Your task to perform on an android device: open the mobile data screen to see how much data has been used Image 0: 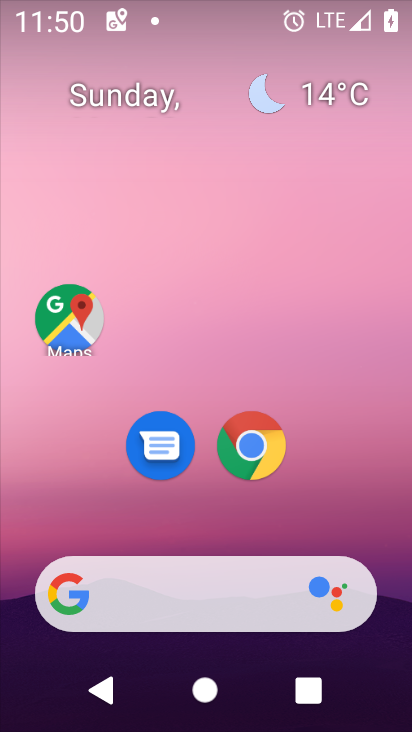
Step 0: click (375, 32)
Your task to perform on an android device: open the mobile data screen to see how much data has been used Image 1: 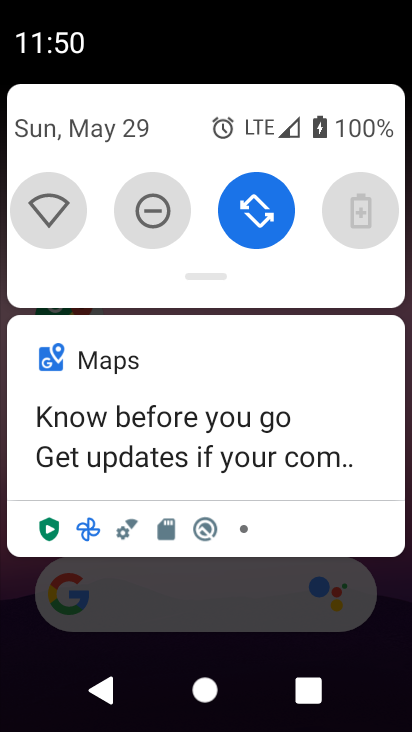
Step 1: drag from (243, 328) to (288, 128)
Your task to perform on an android device: open the mobile data screen to see how much data has been used Image 2: 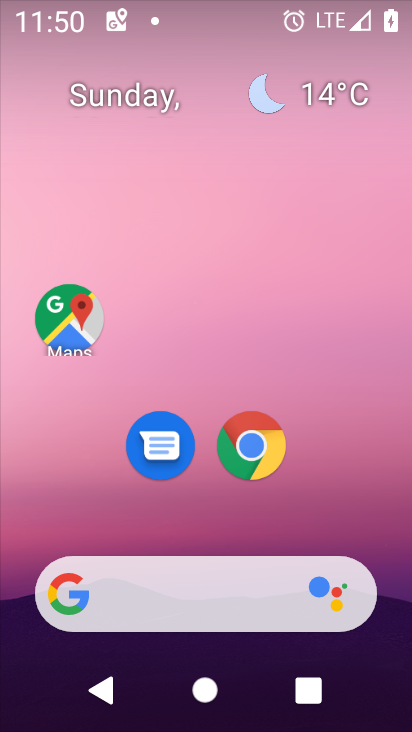
Step 2: drag from (213, 530) to (286, 115)
Your task to perform on an android device: open the mobile data screen to see how much data has been used Image 3: 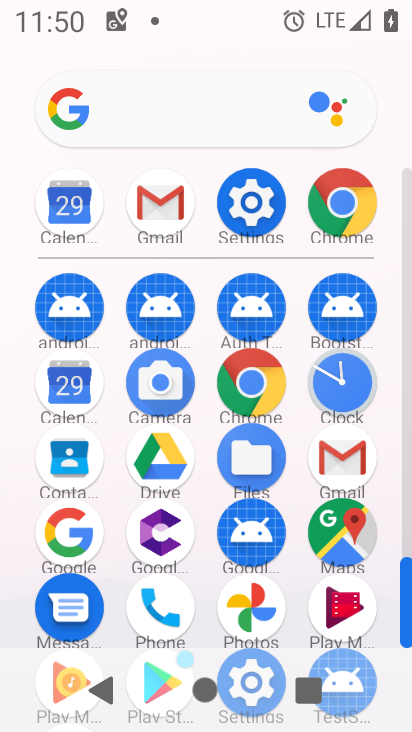
Step 3: click (249, 183)
Your task to perform on an android device: open the mobile data screen to see how much data has been used Image 4: 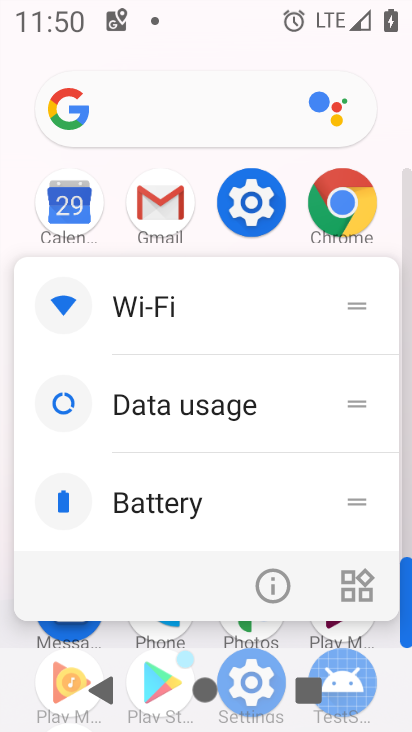
Step 4: click (186, 395)
Your task to perform on an android device: open the mobile data screen to see how much data has been used Image 5: 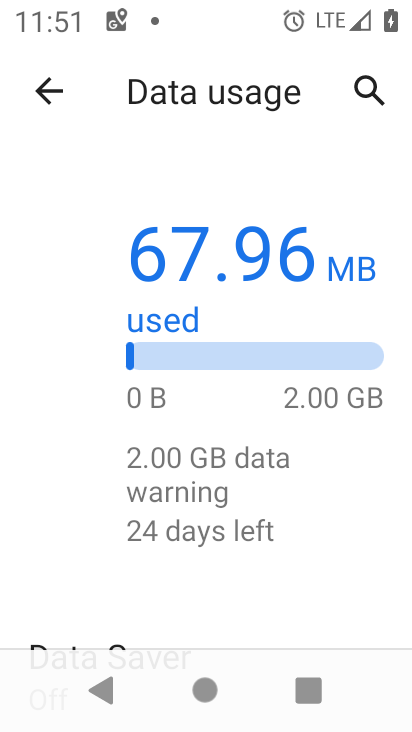
Step 5: task complete